Your task to perform on an android device: turn pop-ups on in chrome Image 0: 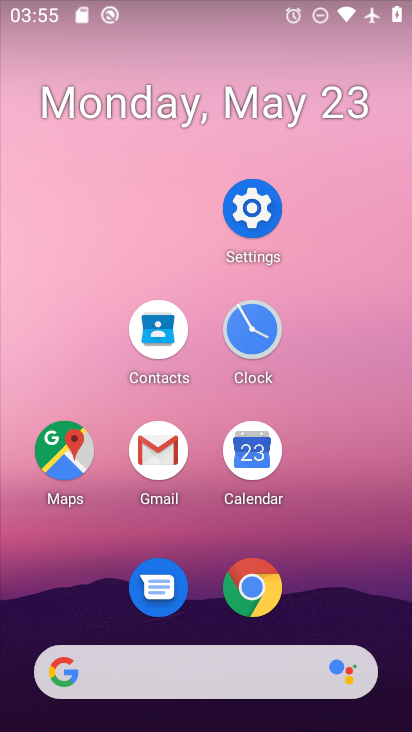
Step 0: click (263, 609)
Your task to perform on an android device: turn pop-ups on in chrome Image 1: 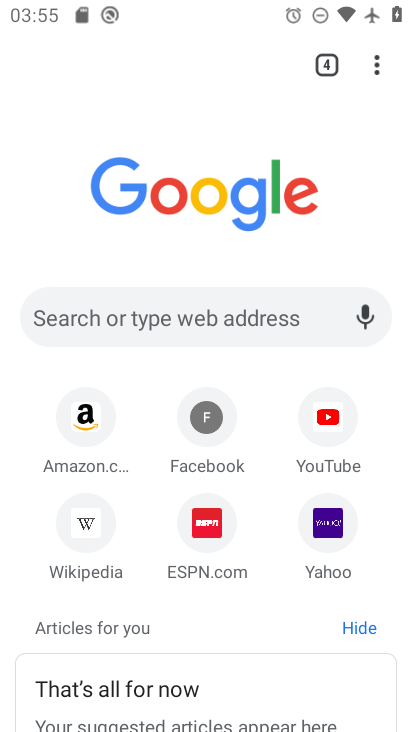
Step 1: click (372, 68)
Your task to perform on an android device: turn pop-ups on in chrome Image 2: 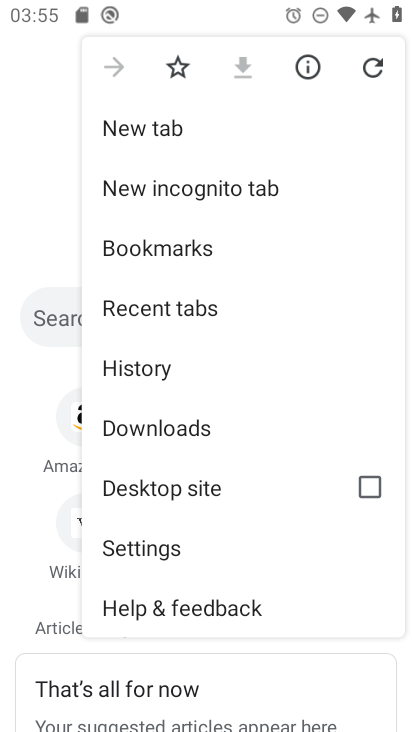
Step 2: click (181, 539)
Your task to perform on an android device: turn pop-ups on in chrome Image 3: 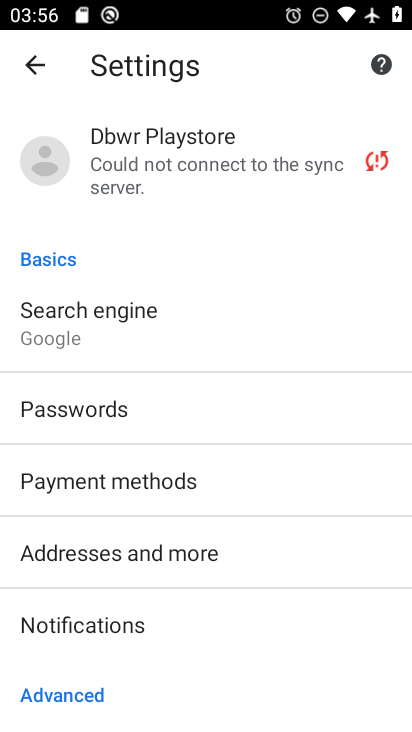
Step 3: drag from (204, 573) to (297, 137)
Your task to perform on an android device: turn pop-ups on in chrome Image 4: 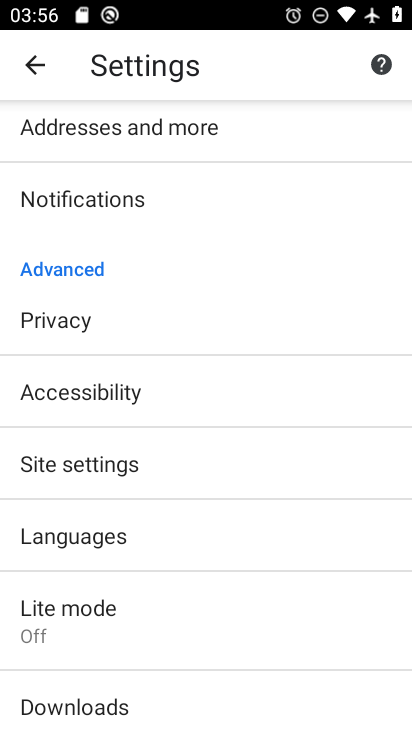
Step 4: click (299, 462)
Your task to perform on an android device: turn pop-ups on in chrome Image 5: 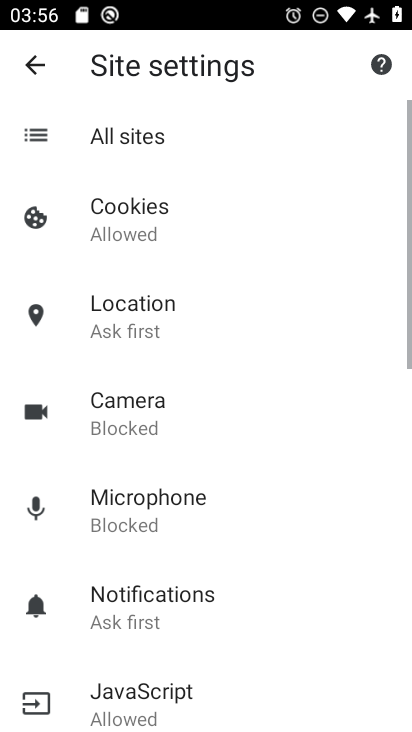
Step 5: drag from (278, 570) to (340, 210)
Your task to perform on an android device: turn pop-ups on in chrome Image 6: 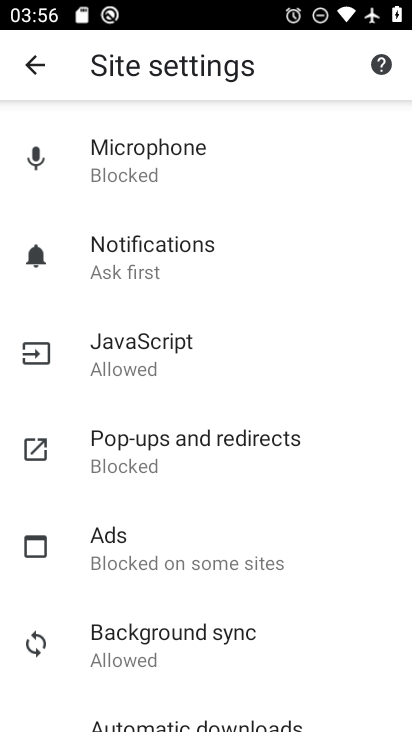
Step 6: click (283, 452)
Your task to perform on an android device: turn pop-ups on in chrome Image 7: 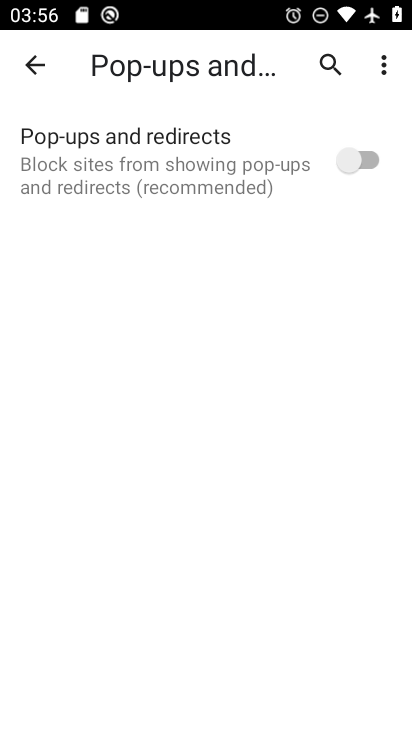
Step 7: click (368, 156)
Your task to perform on an android device: turn pop-ups on in chrome Image 8: 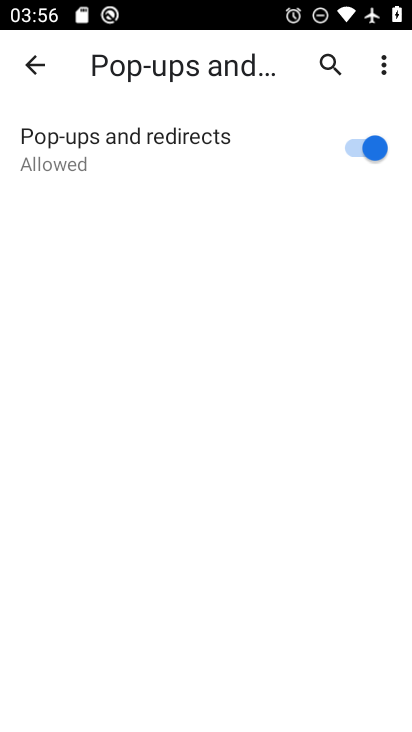
Step 8: task complete